Your task to perform on an android device: turn off notifications settings in the gmail app Image 0: 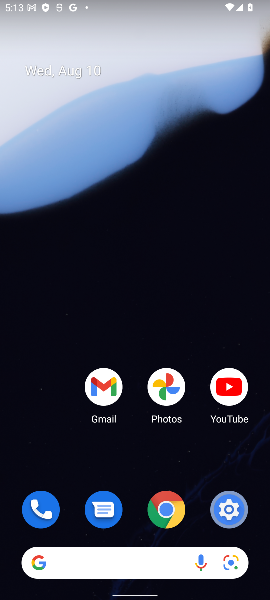
Step 0: drag from (132, 461) to (169, 0)
Your task to perform on an android device: turn off notifications settings in the gmail app Image 1: 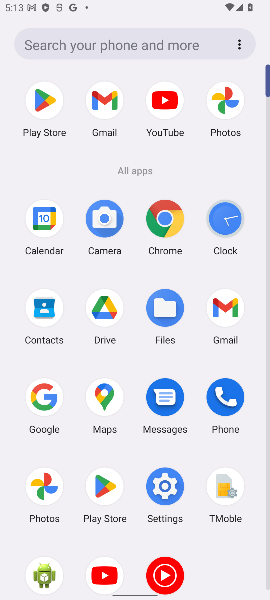
Step 1: click (222, 300)
Your task to perform on an android device: turn off notifications settings in the gmail app Image 2: 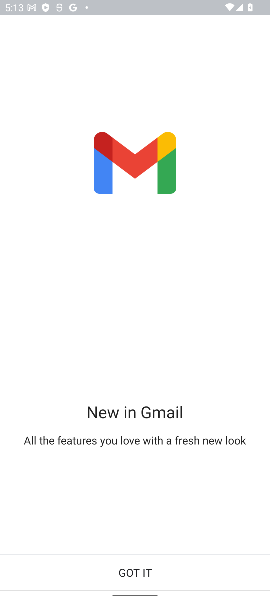
Step 2: click (151, 568)
Your task to perform on an android device: turn off notifications settings in the gmail app Image 3: 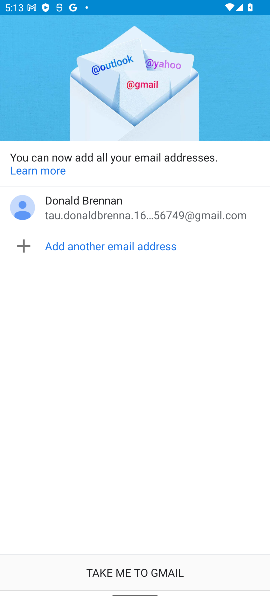
Step 3: click (152, 565)
Your task to perform on an android device: turn off notifications settings in the gmail app Image 4: 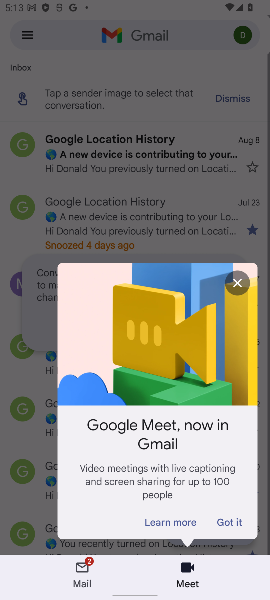
Step 4: click (214, 327)
Your task to perform on an android device: turn off notifications settings in the gmail app Image 5: 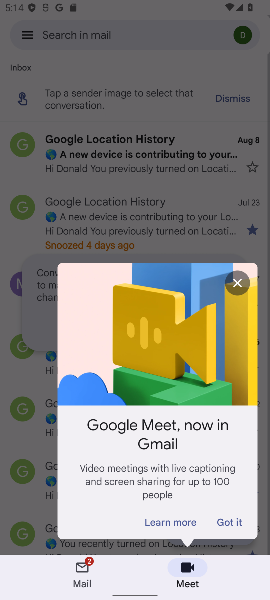
Step 5: click (232, 524)
Your task to perform on an android device: turn off notifications settings in the gmail app Image 6: 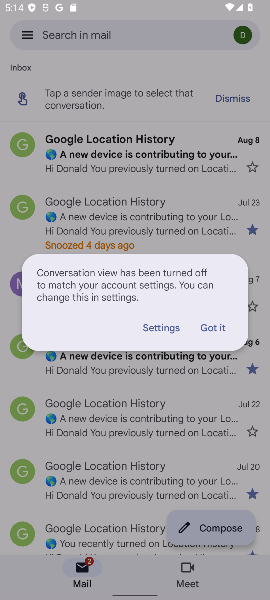
Step 6: click (211, 327)
Your task to perform on an android device: turn off notifications settings in the gmail app Image 7: 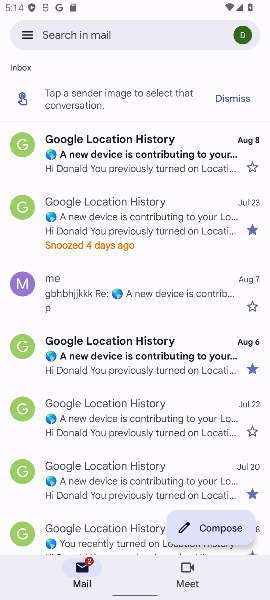
Step 7: click (23, 27)
Your task to perform on an android device: turn off notifications settings in the gmail app Image 8: 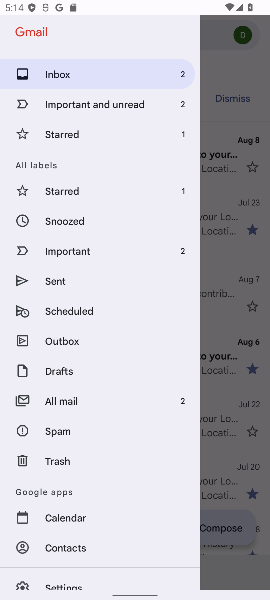
Step 8: drag from (92, 545) to (156, 256)
Your task to perform on an android device: turn off notifications settings in the gmail app Image 9: 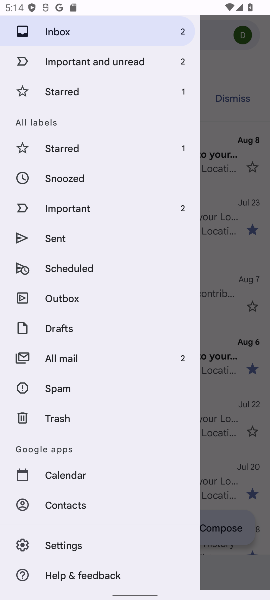
Step 9: click (53, 542)
Your task to perform on an android device: turn off notifications settings in the gmail app Image 10: 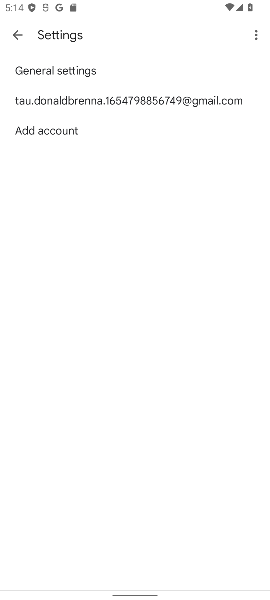
Step 10: click (175, 96)
Your task to perform on an android device: turn off notifications settings in the gmail app Image 11: 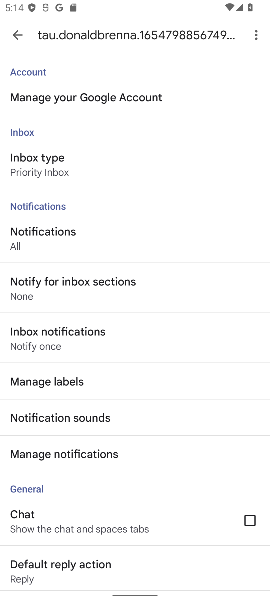
Step 11: click (70, 453)
Your task to perform on an android device: turn off notifications settings in the gmail app Image 12: 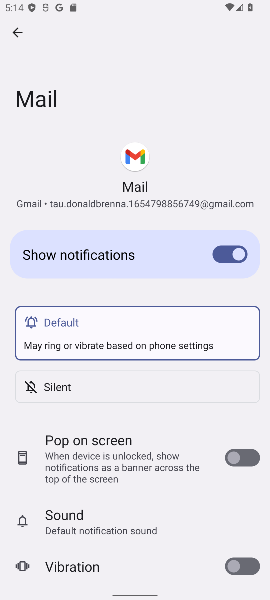
Step 12: click (239, 239)
Your task to perform on an android device: turn off notifications settings in the gmail app Image 13: 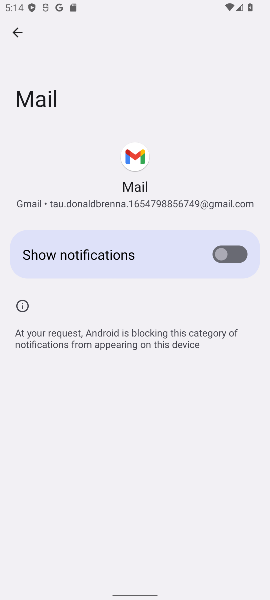
Step 13: task complete